Your task to perform on an android device: turn on airplane mode Image 0: 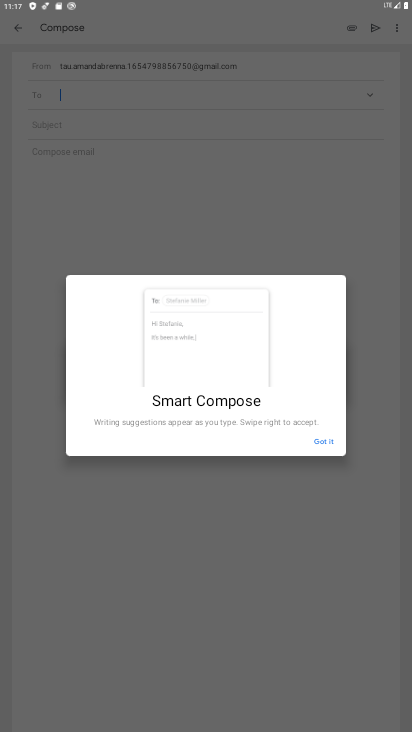
Step 0: press home button
Your task to perform on an android device: turn on airplane mode Image 1: 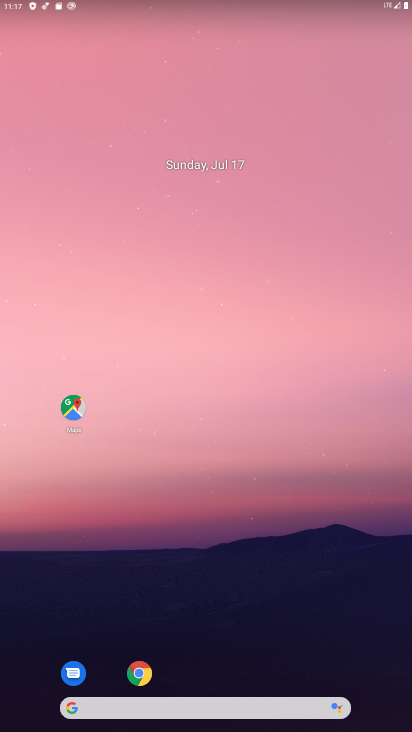
Step 1: drag from (262, 551) to (146, 21)
Your task to perform on an android device: turn on airplane mode Image 2: 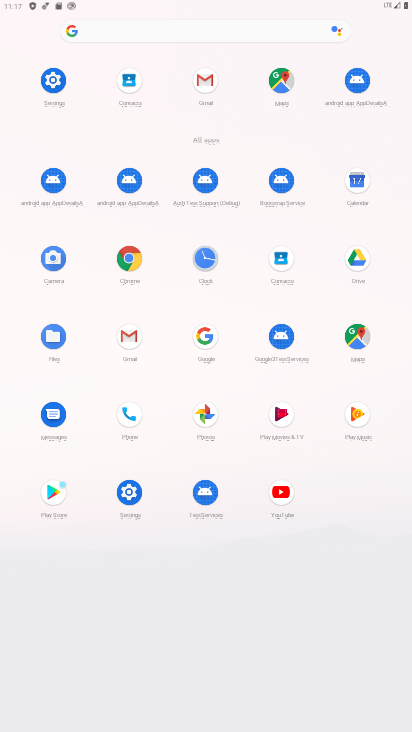
Step 2: click (53, 75)
Your task to perform on an android device: turn on airplane mode Image 3: 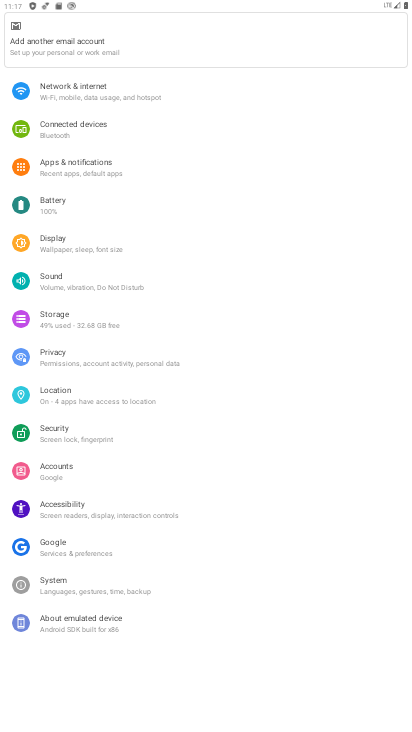
Step 3: drag from (150, 123) to (235, 612)
Your task to perform on an android device: turn on airplane mode Image 4: 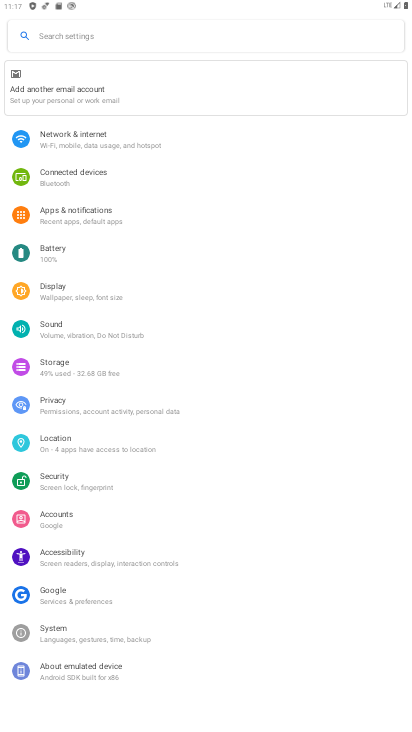
Step 4: click (65, 140)
Your task to perform on an android device: turn on airplane mode Image 5: 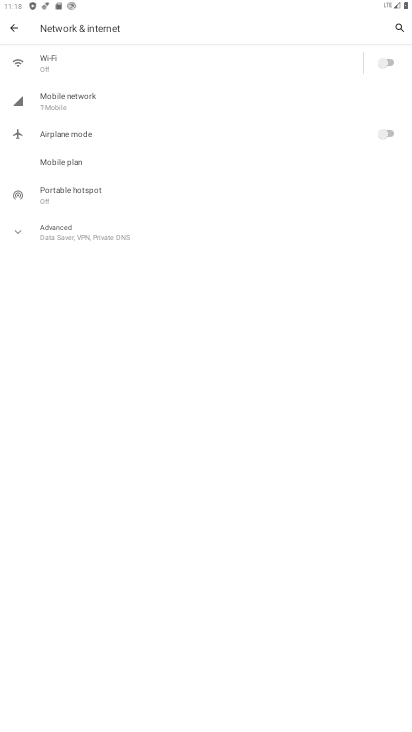
Step 5: click (390, 130)
Your task to perform on an android device: turn on airplane mode Image 6: 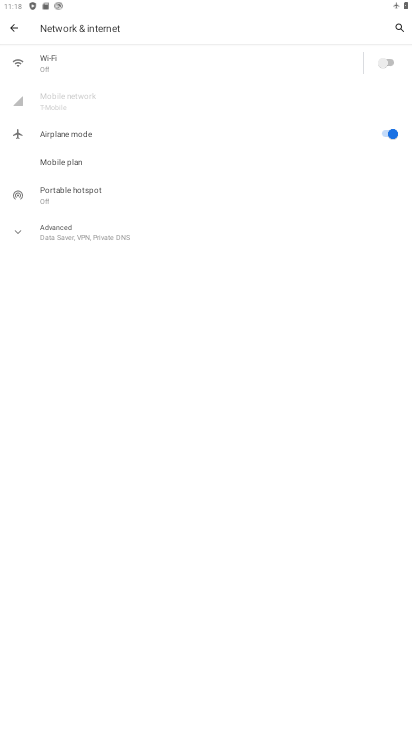
Step 6: task complete